Your task to perform on an android device: Add "usb-c" to the cart on costco.com, then select checkout. Image 0: 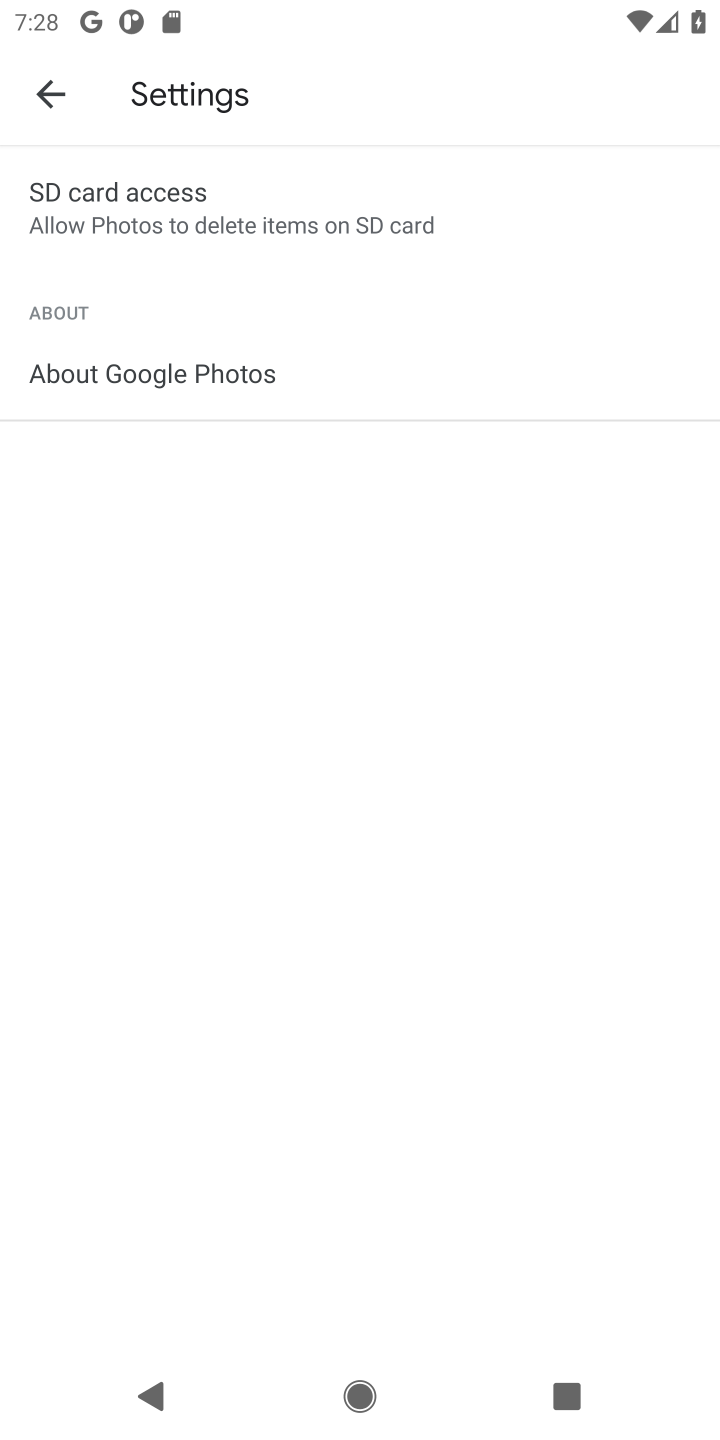
Step 0: press home button
Your task to perform on an android device: Add "usb-c" to the cart on costco.com, then select checkout. Image 1: 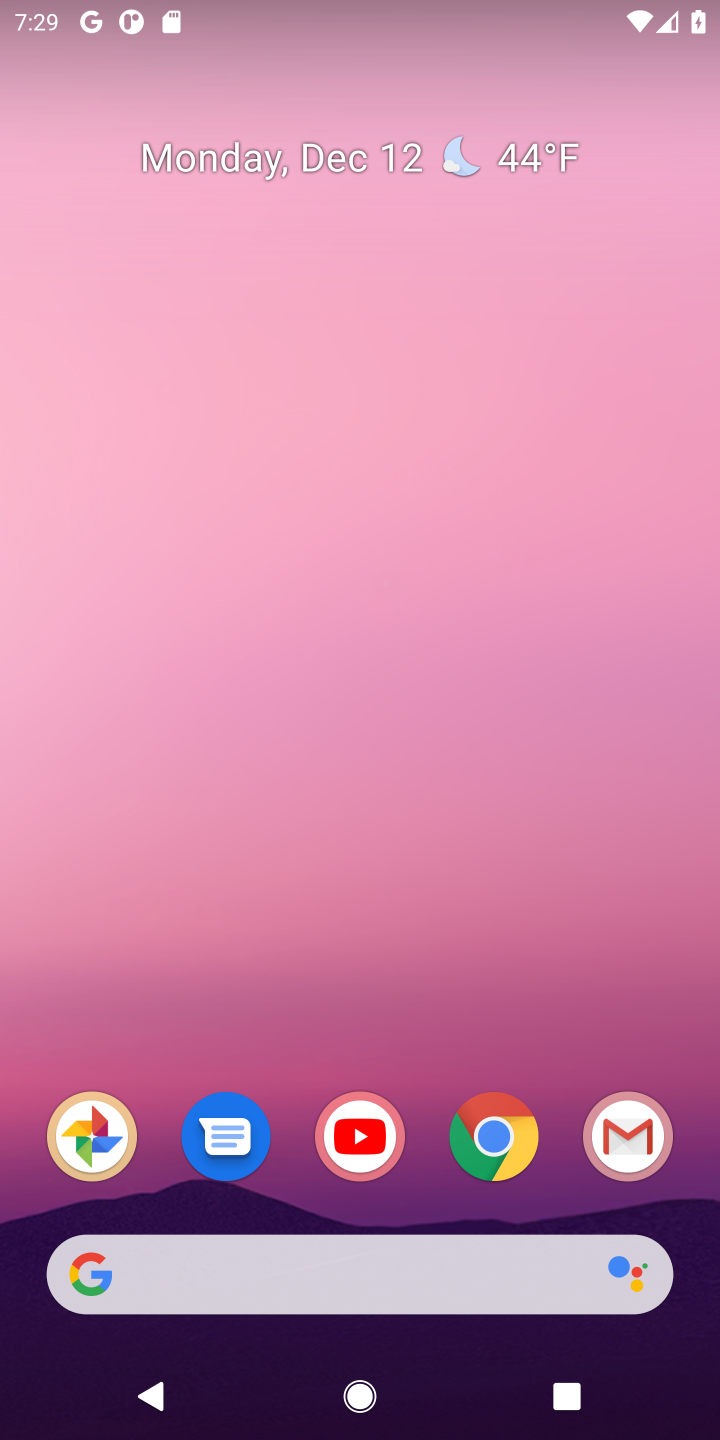
Step 1: click (496, 1147)
Your task to perform on an android device: Add "usb-c" to the cart on costco.com, then select checkout. Image 2: 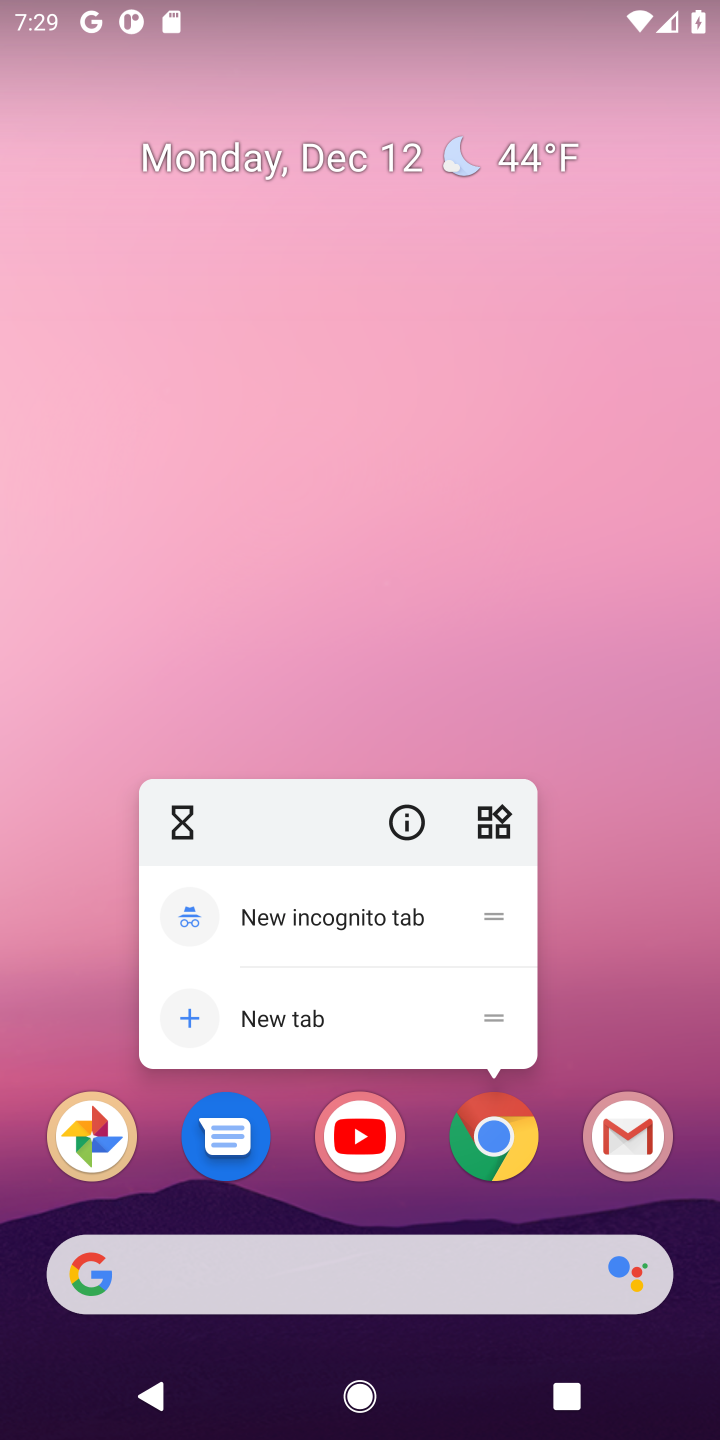
Step 2: click (496, 1147)
Your task to perform on an android device: Add "usb-c" to the cart on costco.com, then select checkout. Image 3: 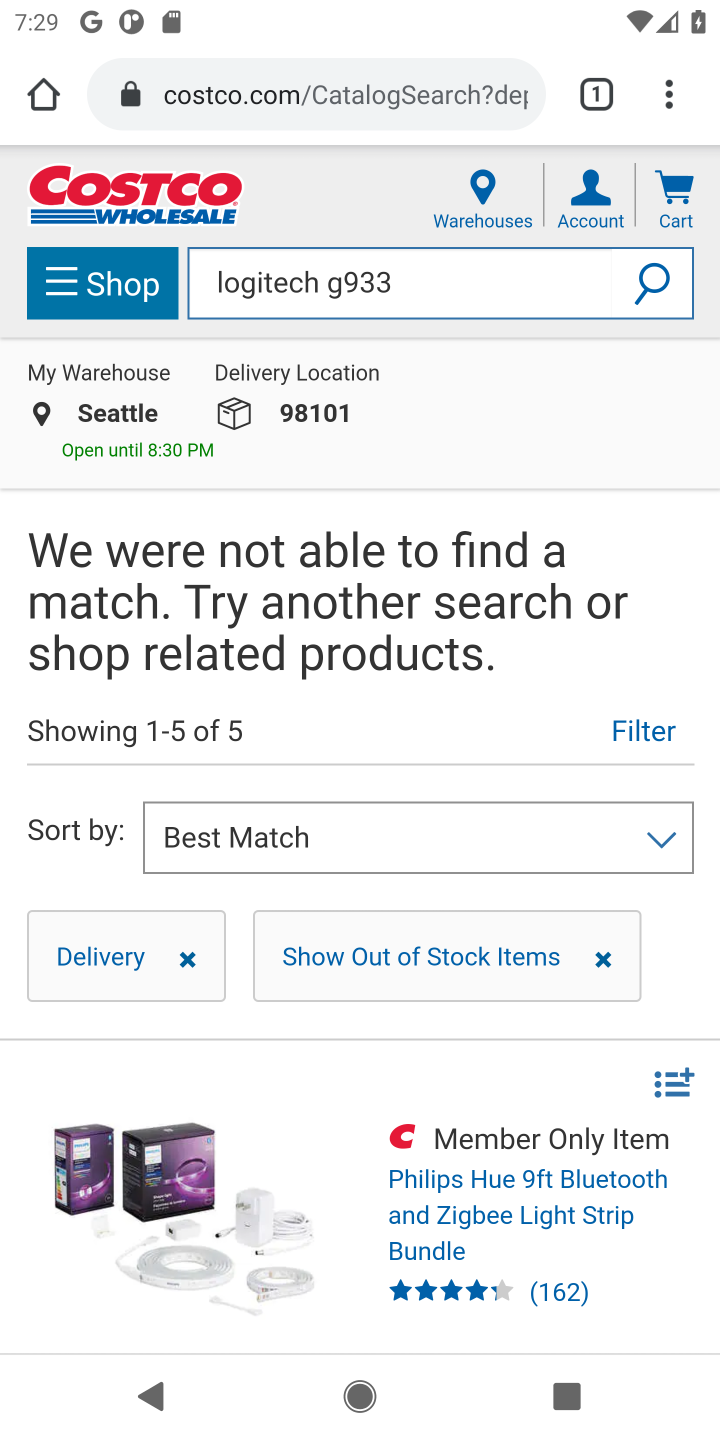
Step 3: click (428, 282)
Your task to perform on an android device: Add "usb-c" to the cart on costco.com, then select checkout. Image 4: 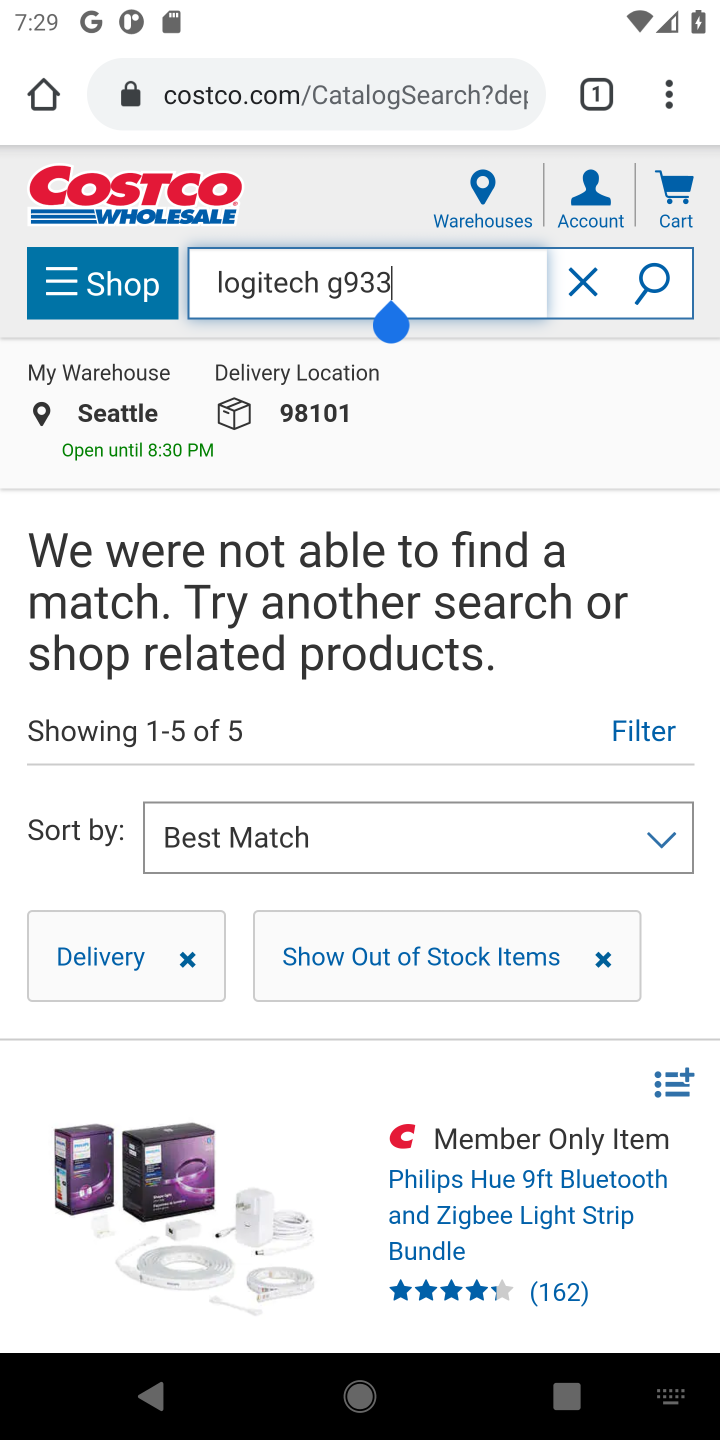
Step 4: click (584, 283)
Your task to perform on an android device: Add "usb-c" to the cart on costco.com, then select checkout. Image 5: 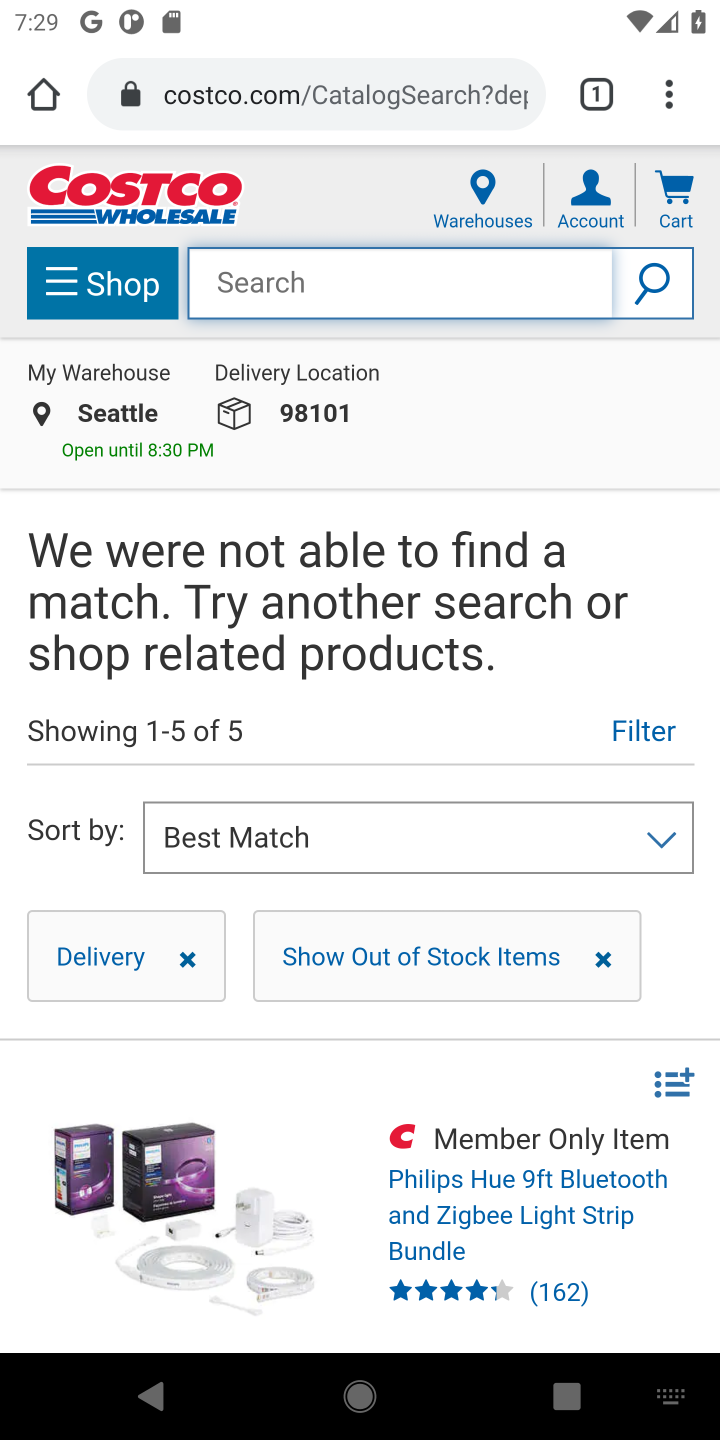
Step 5: type "usb-c"
Your task to perform on an android device: Add "usb-c" to the cart on costco.com, then select checkout. Image 6: 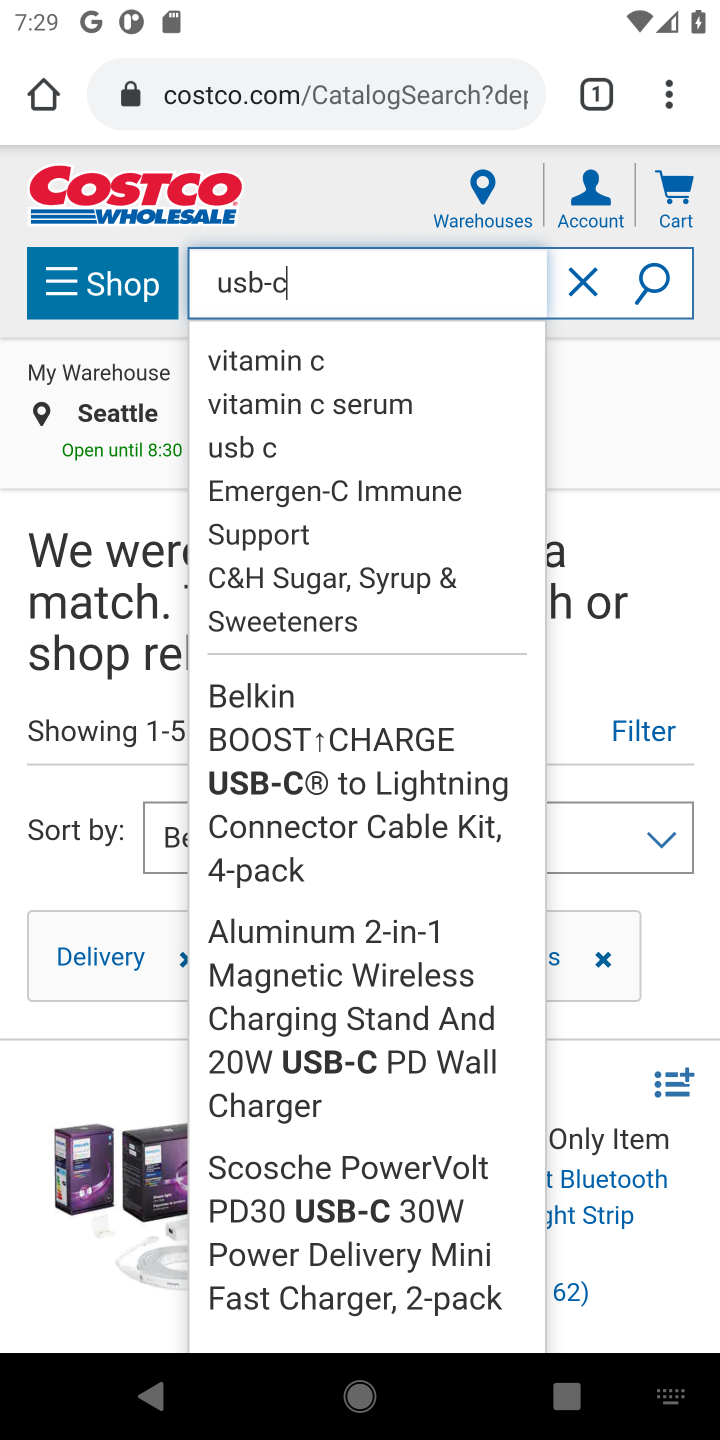
Step 6: click (653, 295)
Your task to perform on an android device: Add "usb-c" to the cart on costco.com, then select checkout. Image 7: 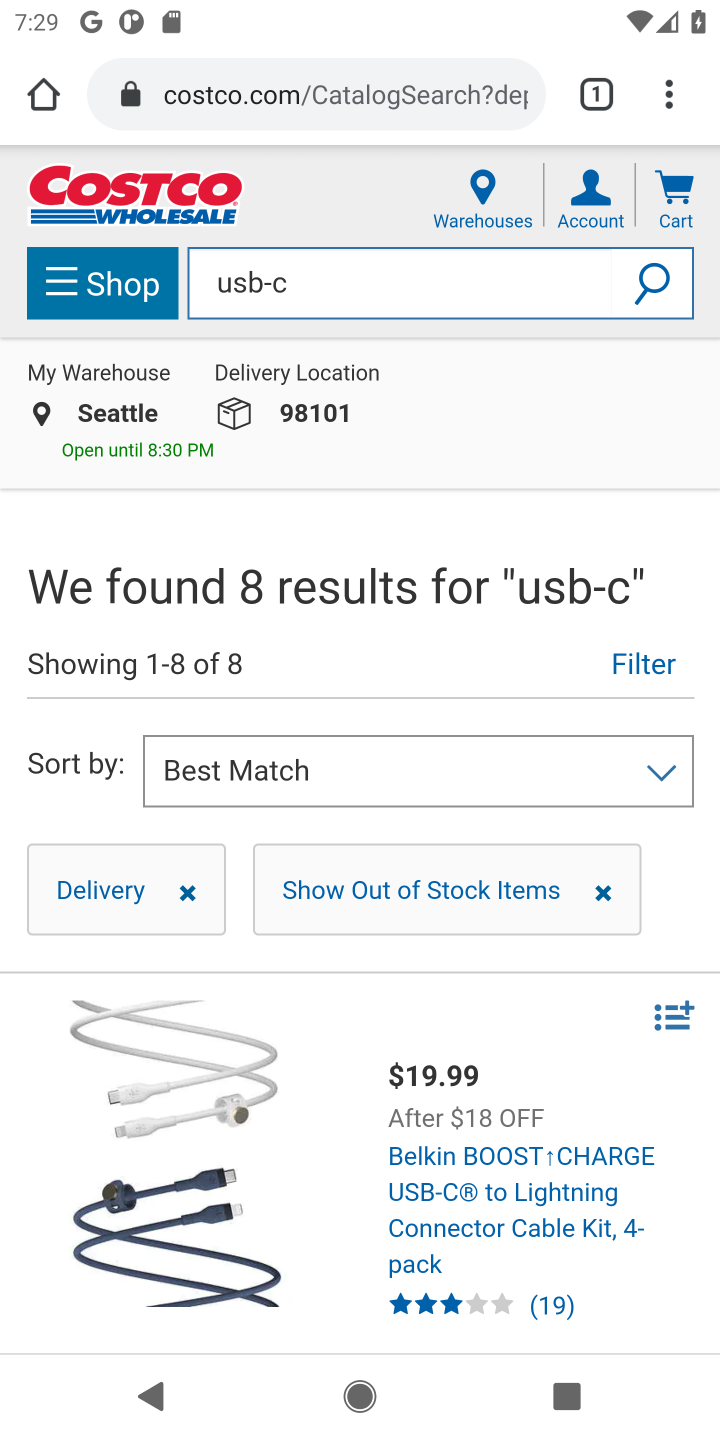
Step 7: drag from (306, 970) to (317, 592)
Your task to perform on an android device: Add "usb-c" to the cart on costco.com, then select checkout. Image 8: 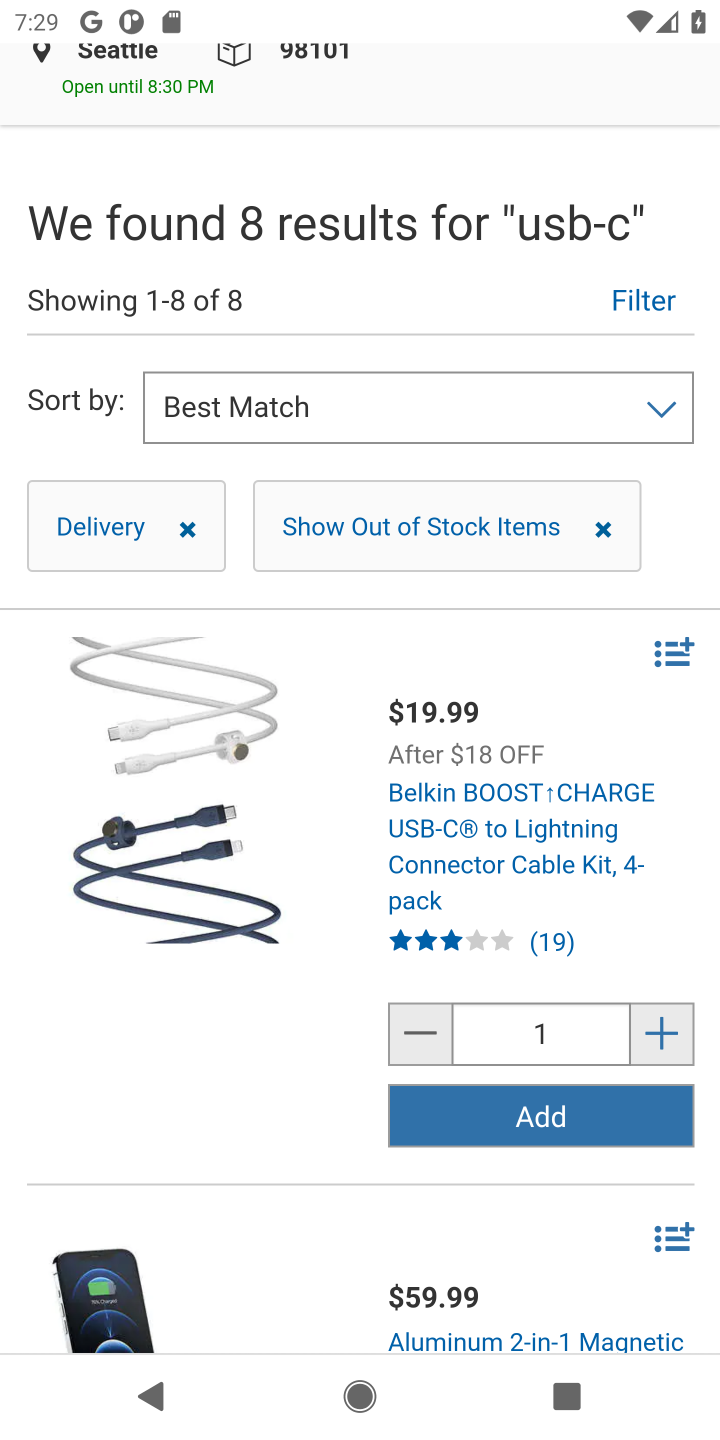
Step 8: click (515, 1106)
Your task to perform on an android device: Add "usb-c" to the cart on costco.com, then select checkout. Image 9: 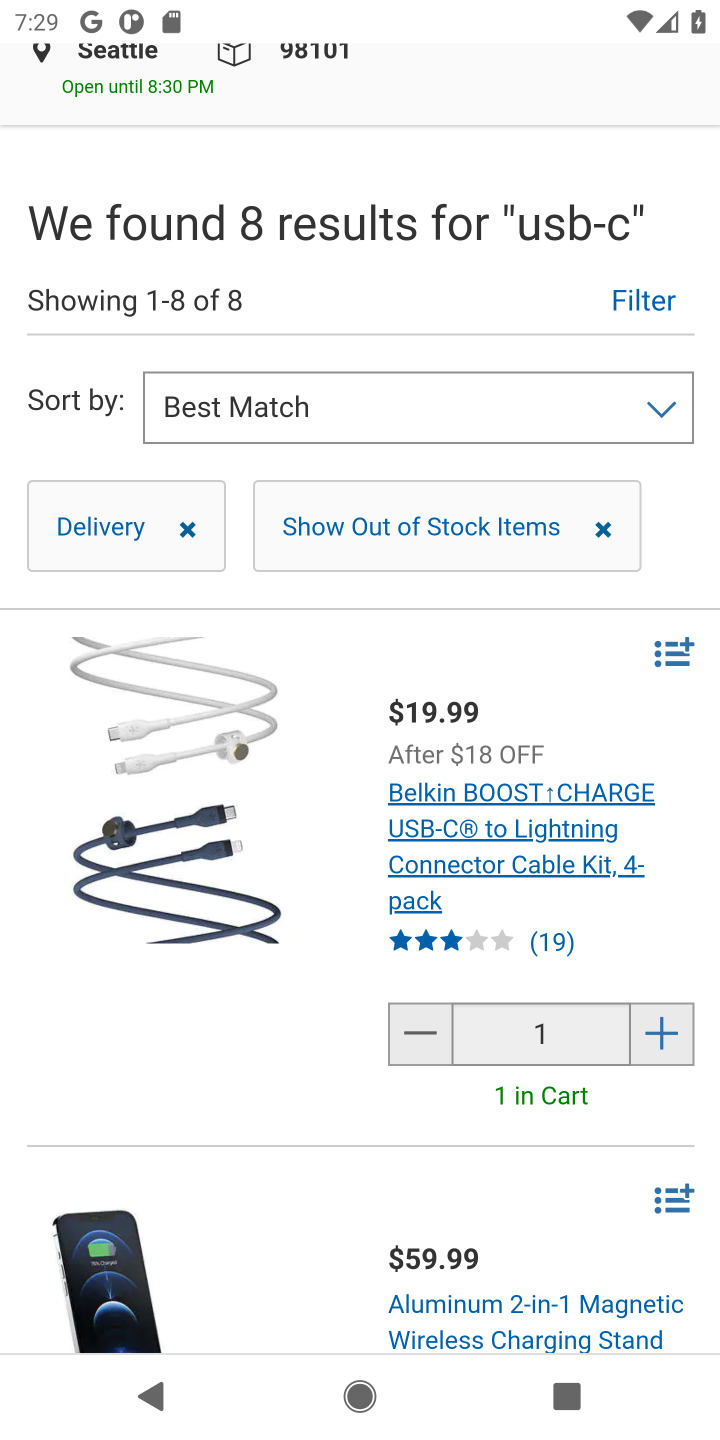
Step 9: drag from (481, 296) to (455, 726)
Your task to perform on an android device: Add "usb-c" to the cart on costco.com, then select checkout. Image 10: 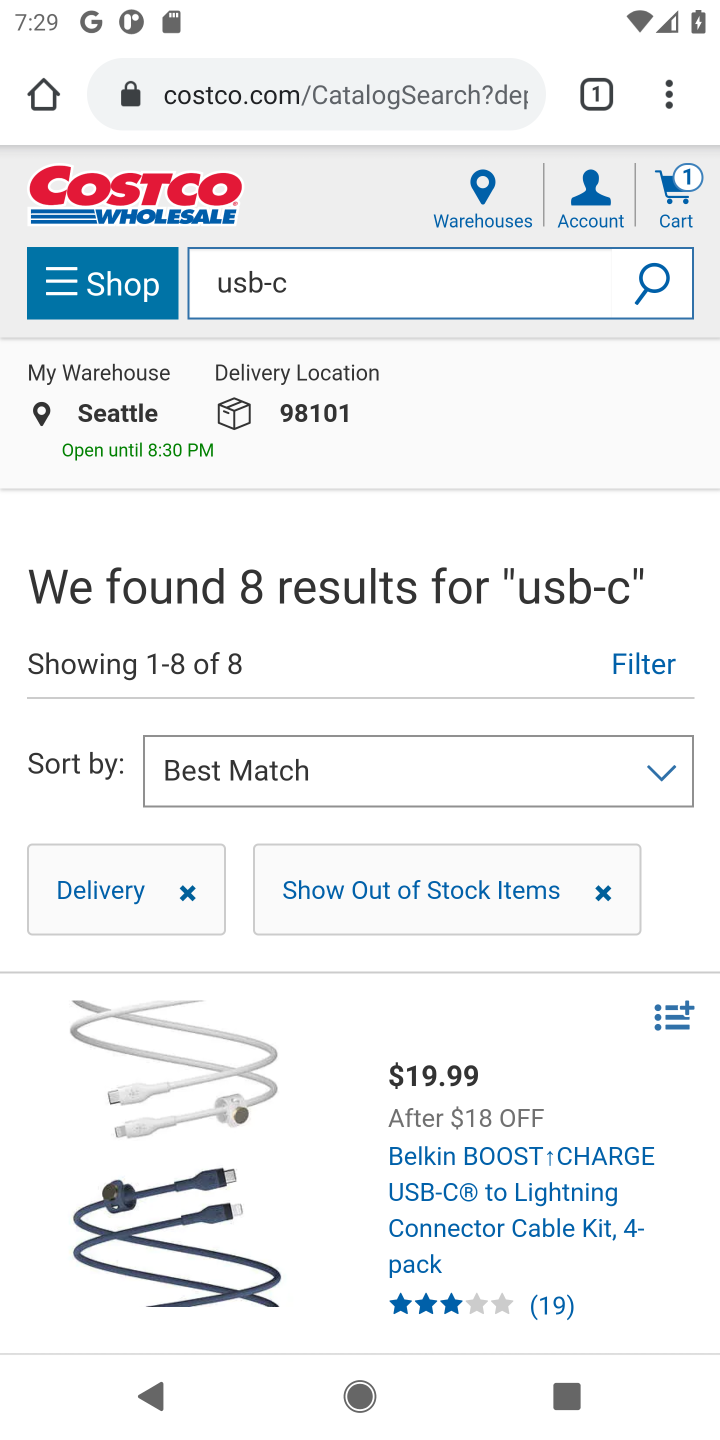
Step 10: click (681, 203)
Your task to perform on an android device: Add "usb-c" to the cart on costco.com, then select checkout. Image 11: 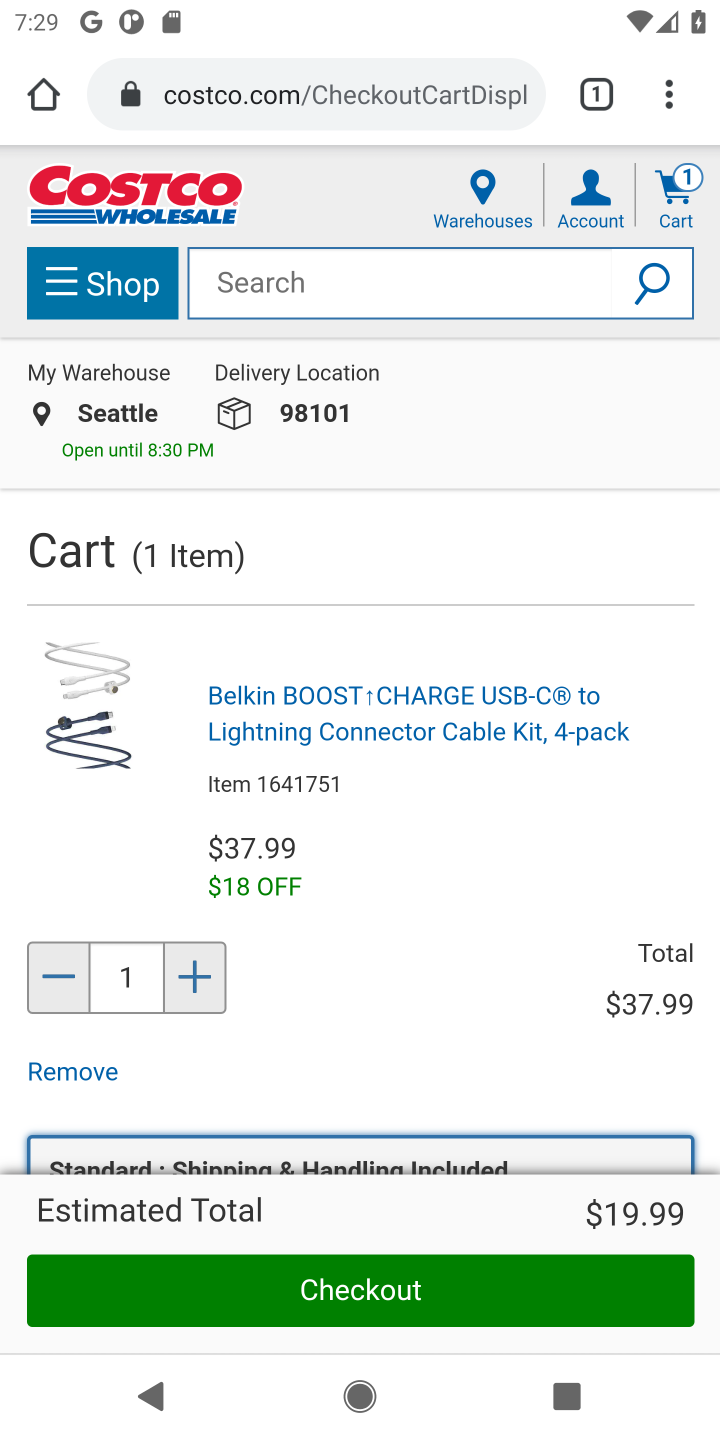
Step 11: click (417, 1308)
Your task to perform on an android device: Add "usb-c" to the cart on costco.com, then select checkout. Image 12: 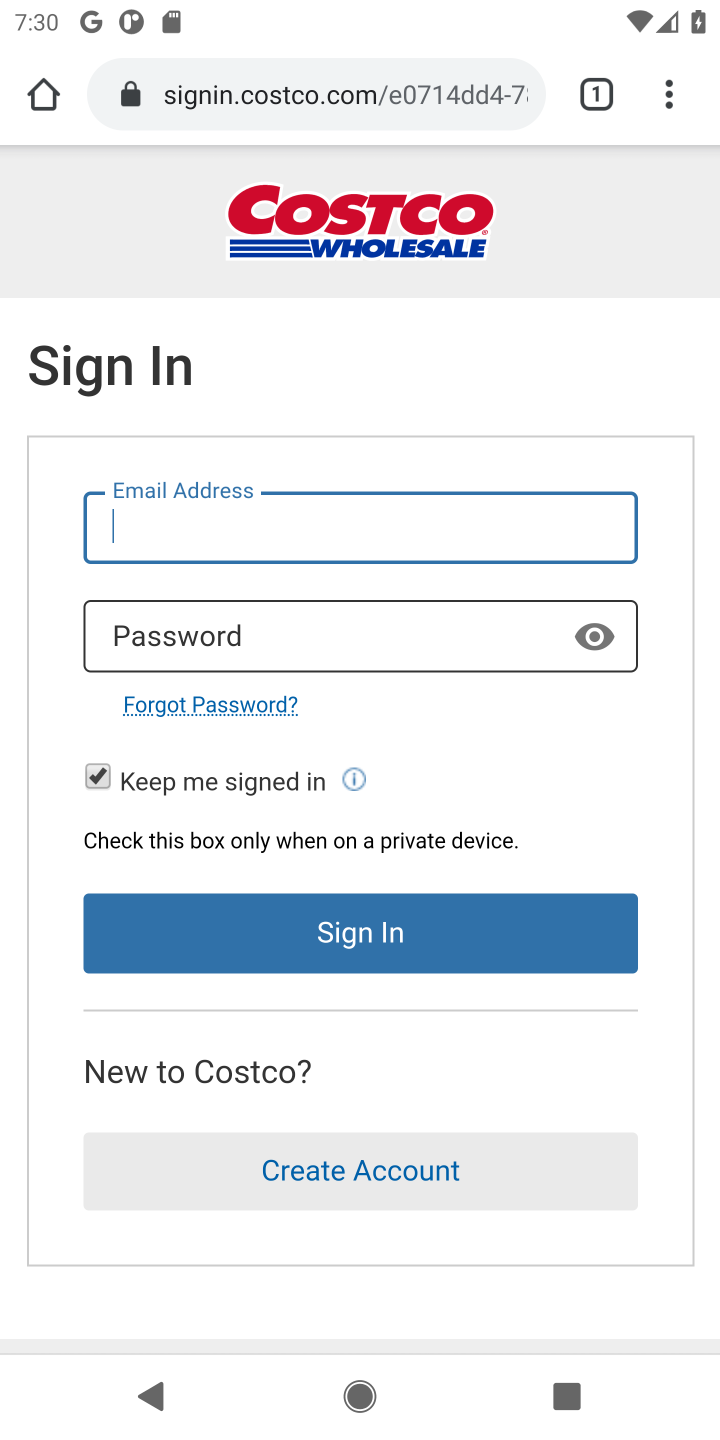
Step 12: task complete